Your task to perform on an android device: open chrome privacy settings Image 0: 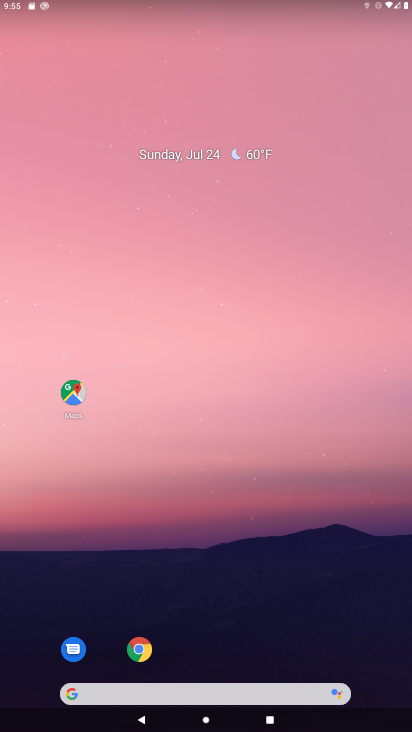
Step 0: drag from (324, 595) to (283, 60)
Your task to perform on an android device: open chrome privacy settings Image 1: 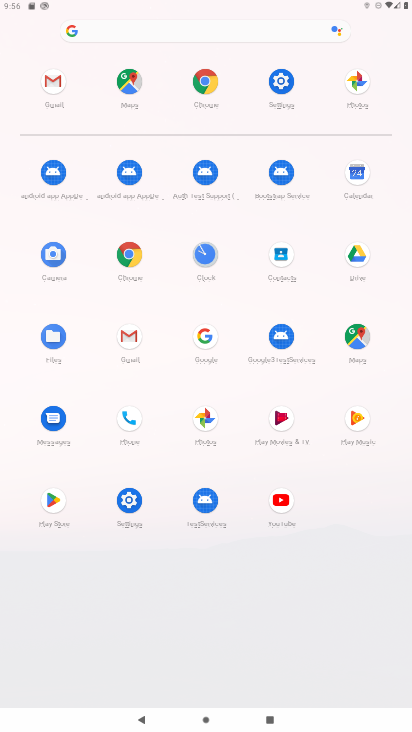
Step 1: click (277, 82)
Your task to perform on an android device: open chrome privacy settings Image 2: 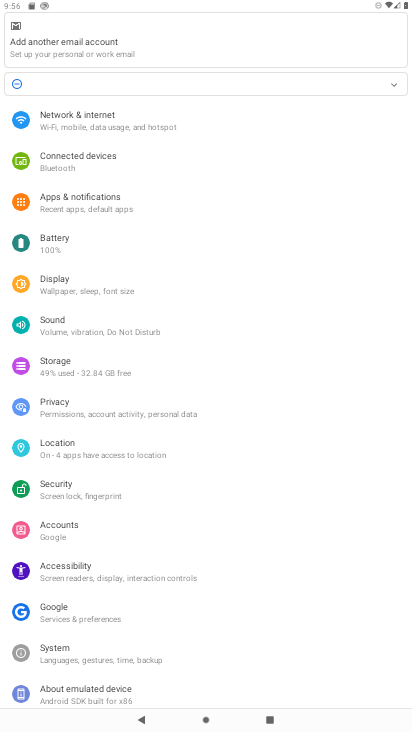
Step 2: click (112, 405)
Your task to perform on an android device: open chrome privacy settings Image 3: 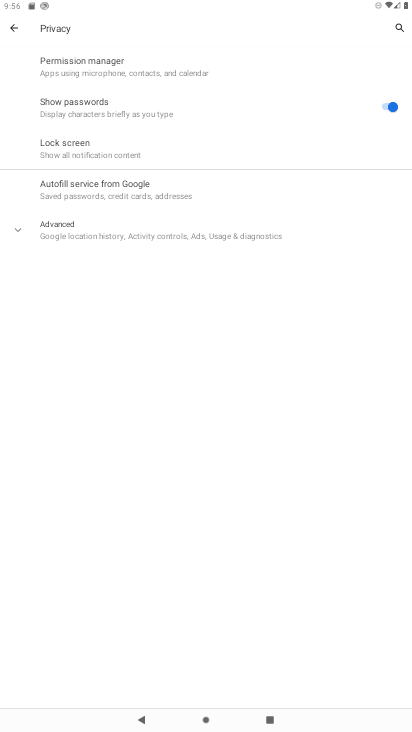
Step 3: task complete